Your task to perform on an android device: Open Amazon Image 0: 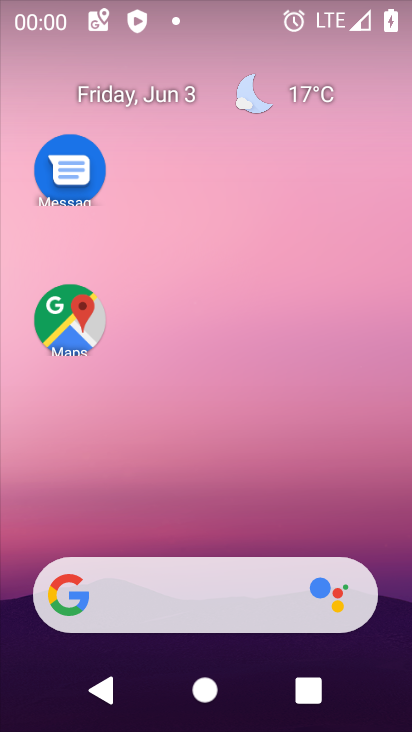
Step 0: press home button
Your task to perform on an android device: Open Amazon Image 1: 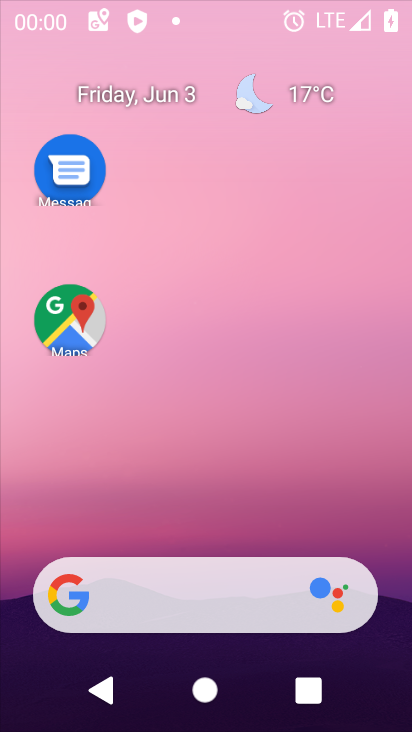
Step 1: drag from (205, 494) to (300, 4)
Your task to perform on an android device: Open Amazon Image 2: 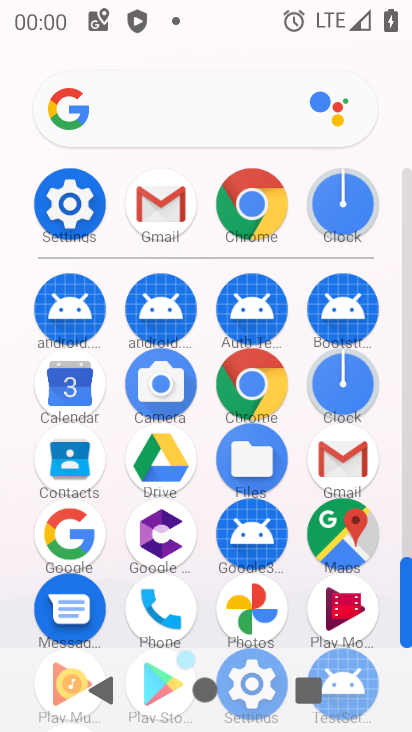
Step 2: click (256, 190)
Your task to perform on an android device: Open Amazon Image 3: 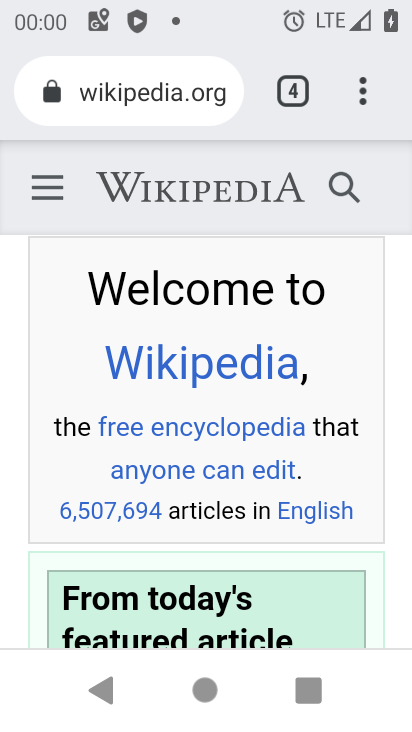
Step 3: drag from (373, 91) to (24, 191)
Your task to perform on an android device: Open Amazon Image 4: 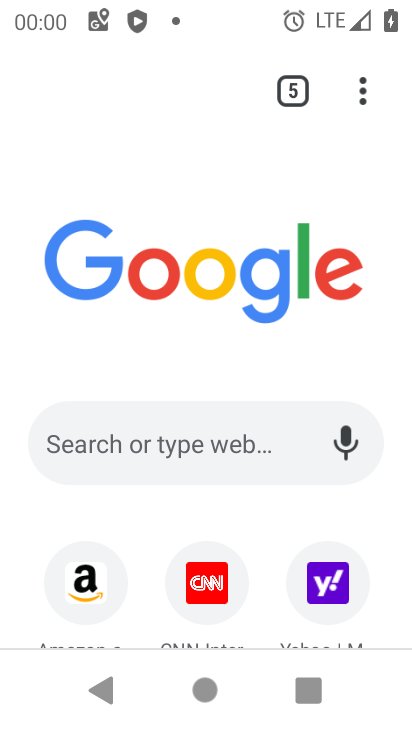
Step 4: click (89, 587)
Your task to perform on an android device: Open Amazon Image 5: 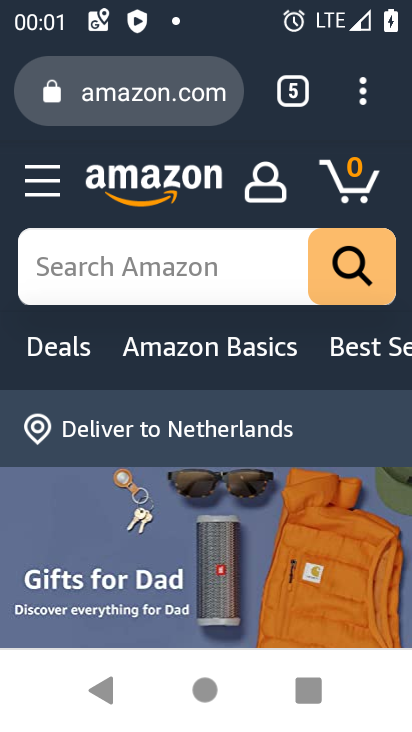
Step 5: task complete